Your task to perform on an android device: open app "Contacts" (install if not already installed) Image 0: 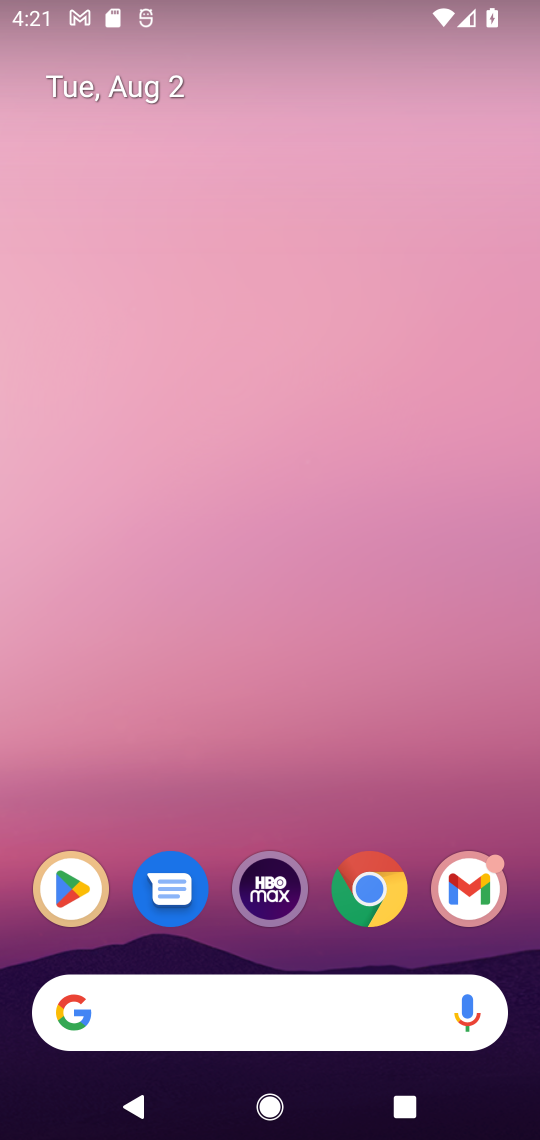
Step 0: press home button
Your task to perform on an android device: open app "Contacts" (install if not already installed) Image 1: 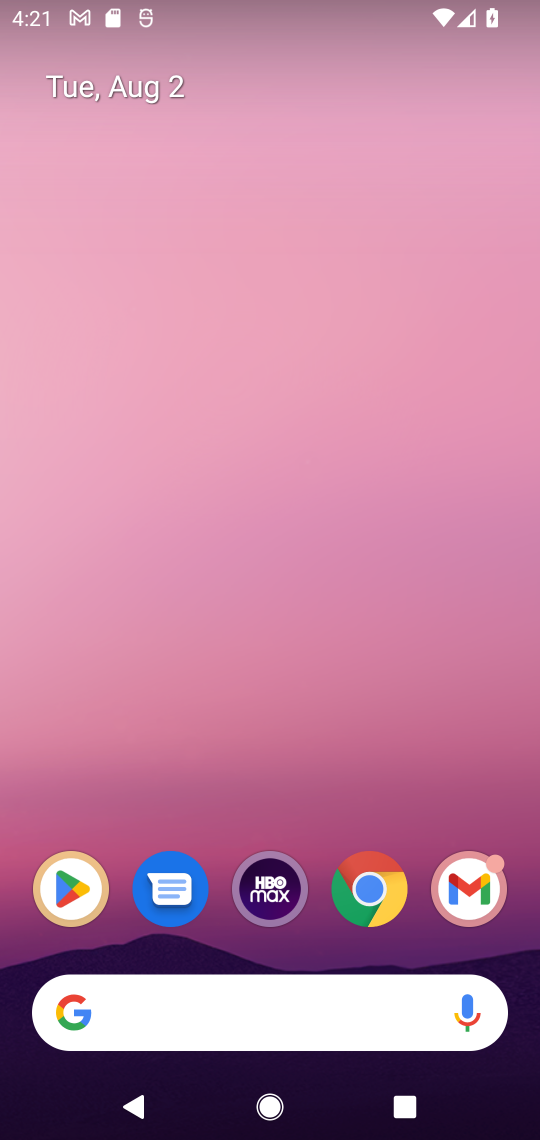
Step 1: drag from (422, 734) to (412, 169)
Your task to perform on an android device: open app "Contacts" (install if not already installed) Image 2: 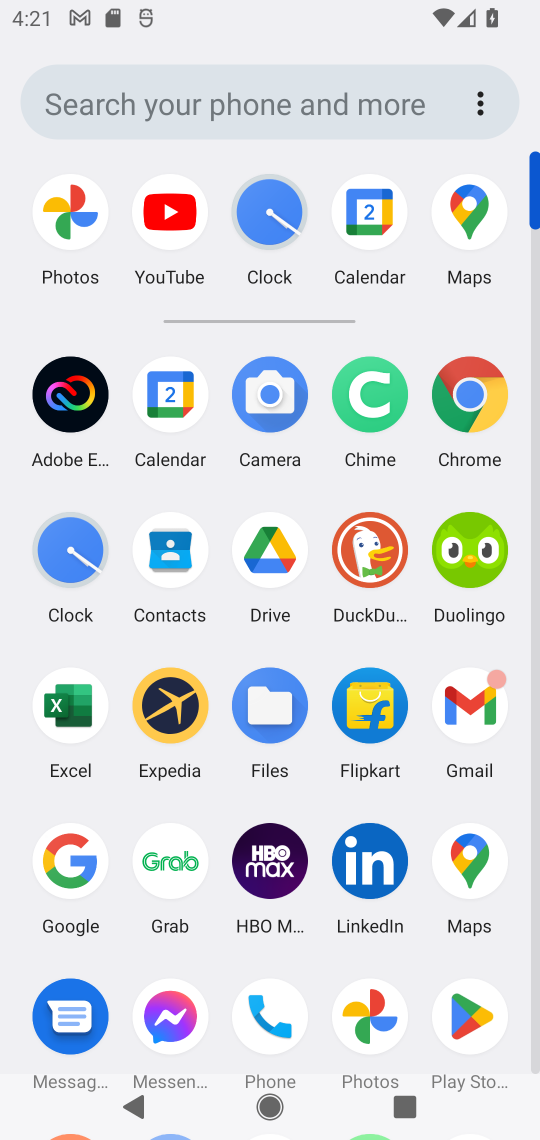
Step 2: click (479, 1020)
Your task to perform on an android device: open app "Contacts" (install if not already installed) Image 3: 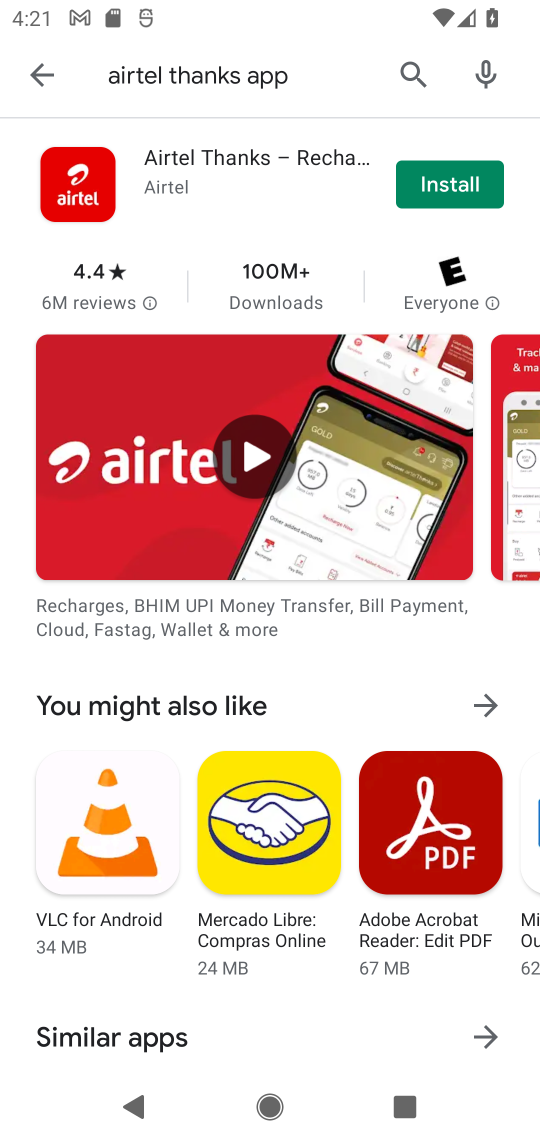
Step 3: click (427, 81)
Your task to perform on an android device: open app "Contacts" (install if not already installed) Image 4: 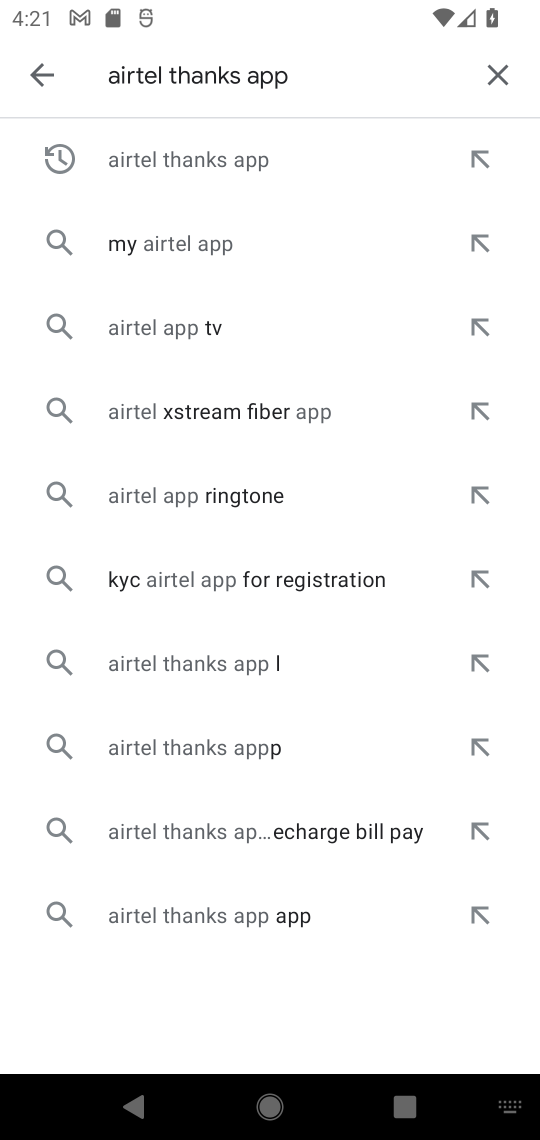
Step 4: click (488, 76)
Your task to perform on an android device: open app "Contacts" (install if not already installed) Image 5: 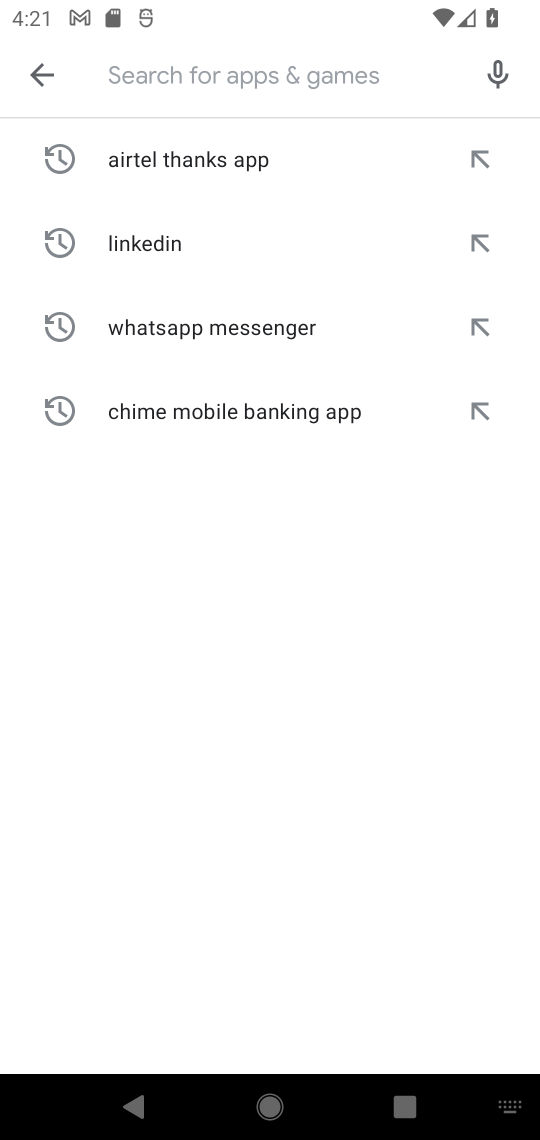
Step 5: type "contacts"
Your task to perform on an android device: open app "Contacts" (install if not already installed) Image 6: 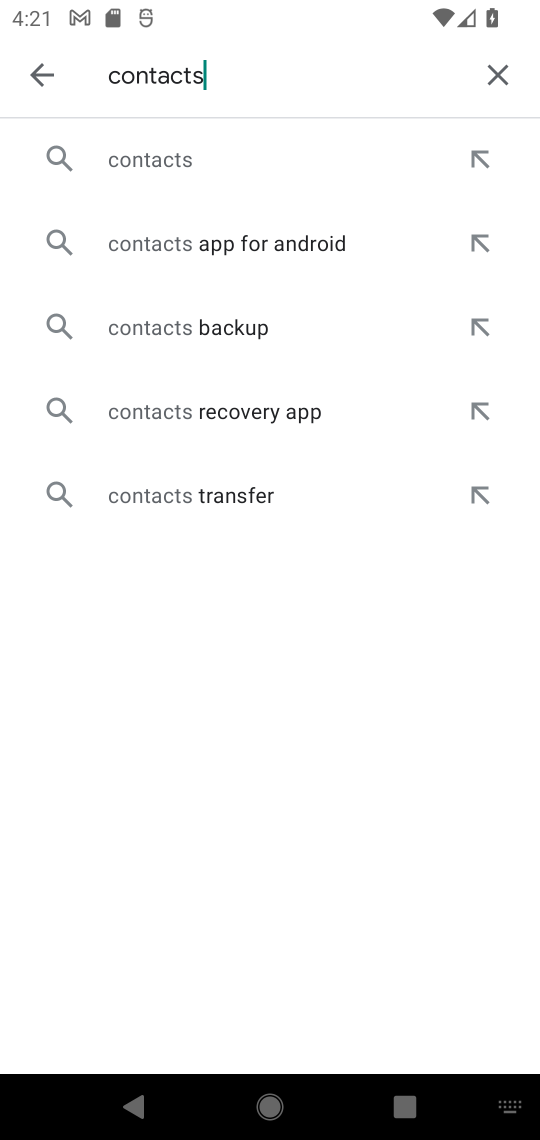
Step 6: click (179, 166)
Your task to perform on an android device: open app "Contacts" (install if not already installed) Image 7: 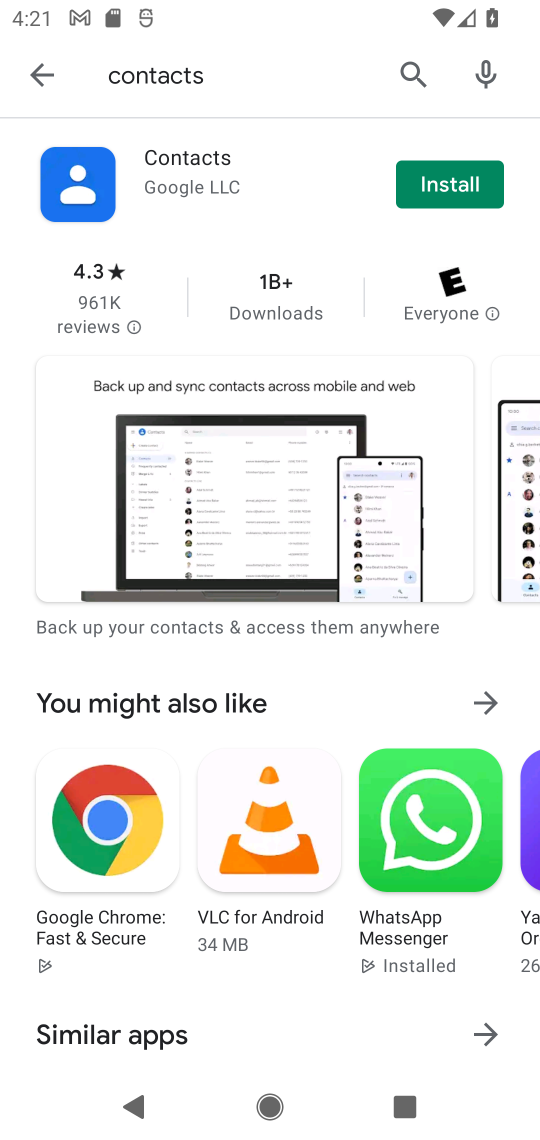
Step 7: click (452, 187)
Your task to perform on an android device: open app "Contacts" (install if not already installed) Image 8: 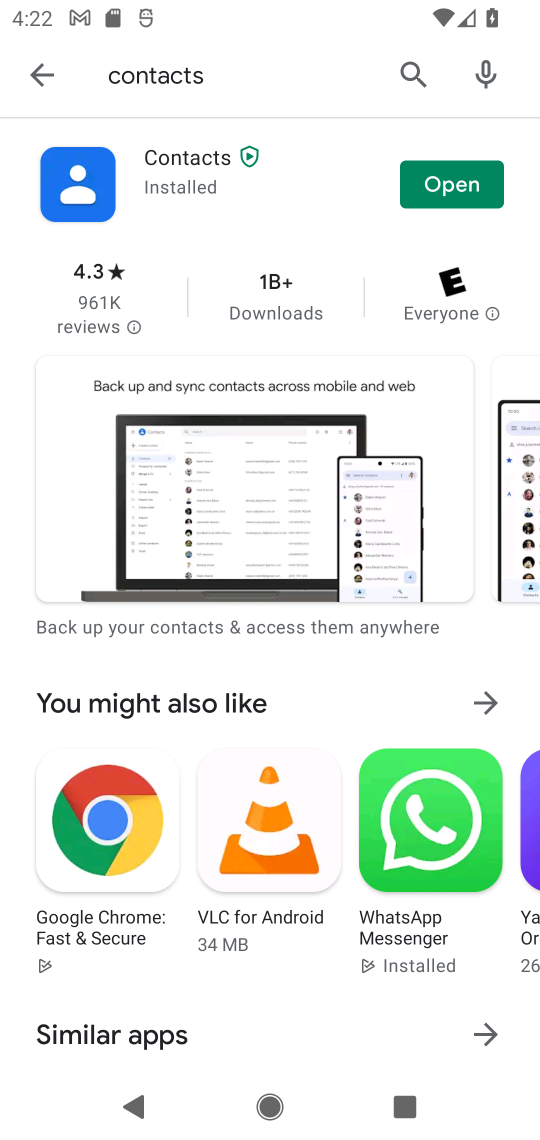
Step 8: click (471, 190)
Your task to perform on an android device: open app "Contacts" (install if not already installed) Image 9: 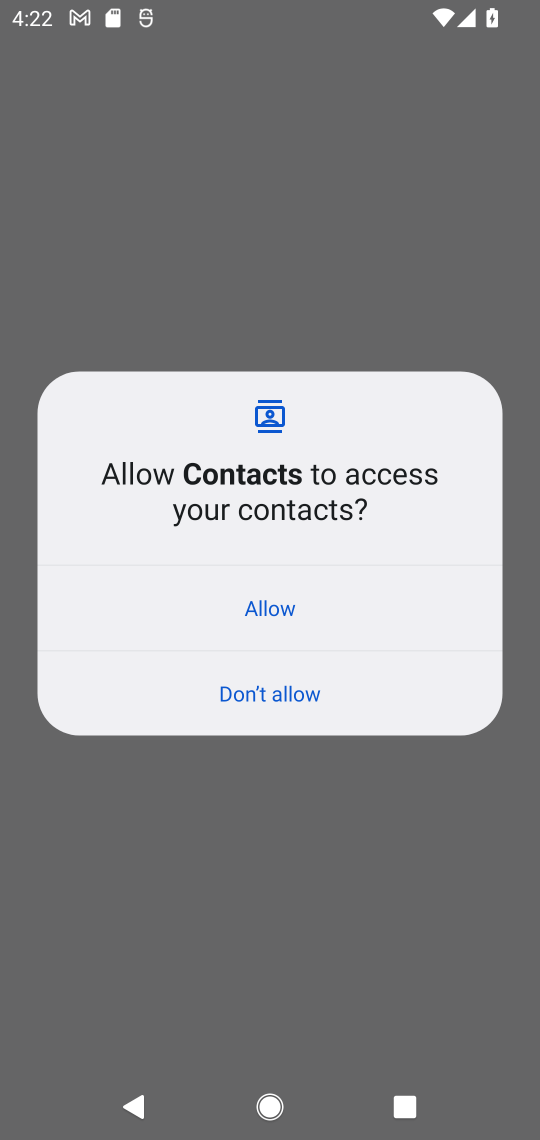
Step 9: task complete